Your task to perform on an android device: turn off notifications in google photos Image 0: 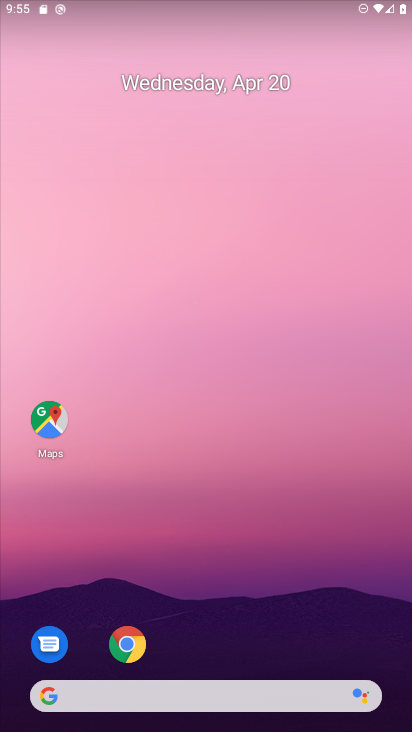
Step 0: drag from (291, 635) to (213, 51)
Your task to perform on an android device: turn off notifications in google photos Image 1: 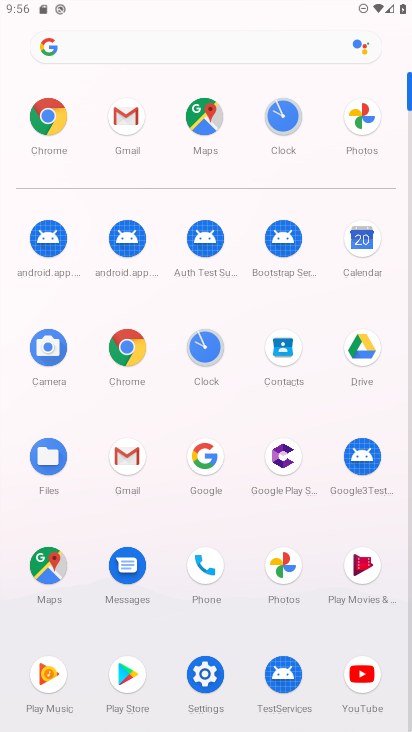
Step 1: click (278, 564)
Your task to perform on an android device: turn off notifications in google photos Image 2: 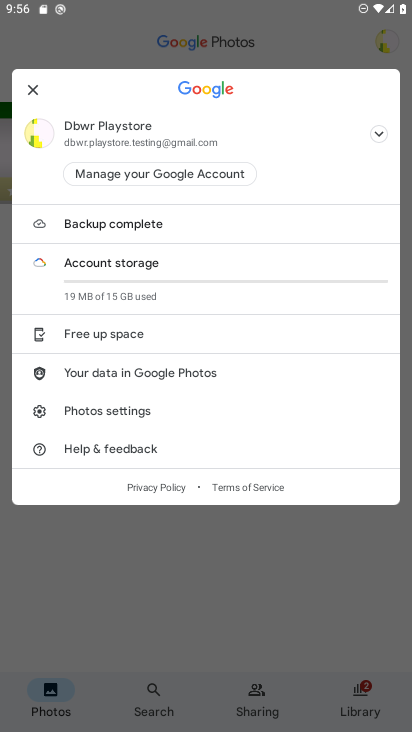
Step 2: click (155, 411)
Your task to perform on an android device: turn off notifications in google photos Image 3: 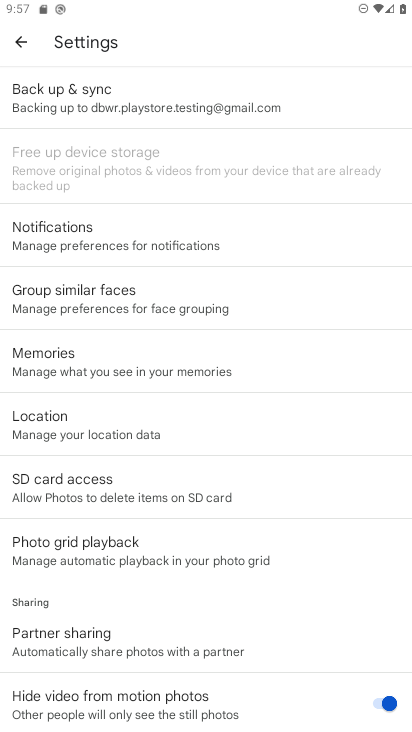
Step 3: click (169, 252)
Your task to perform on an android device: turn off notifications in google photos Image 4: 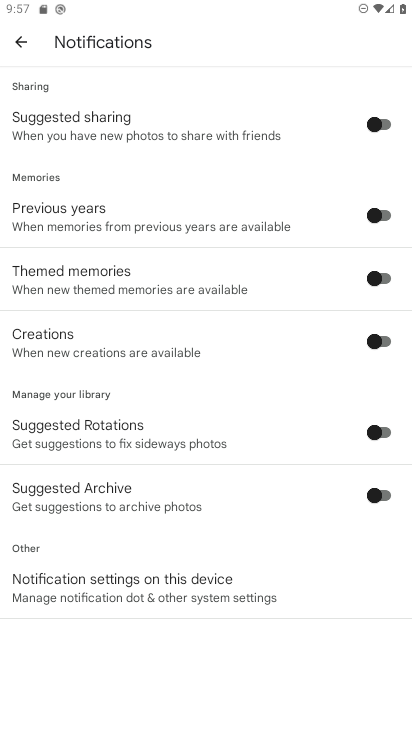
Step 4: task complete